Your task to perform on an android device: change the clock display to show seconds Image 0: 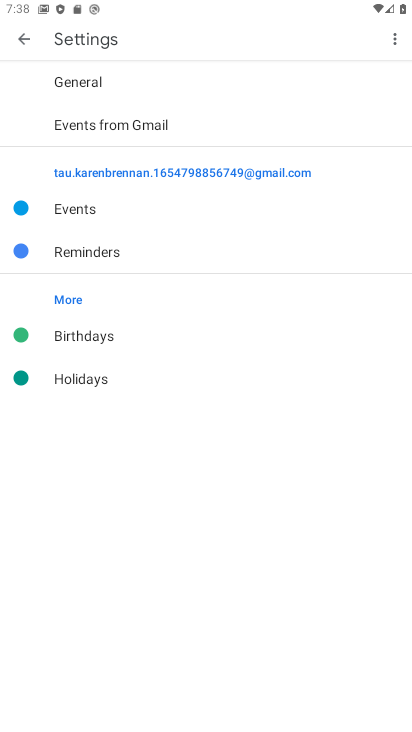
Step 0: press home button
Your task to perform on an android device: change the clock display to show seconds Image 1: 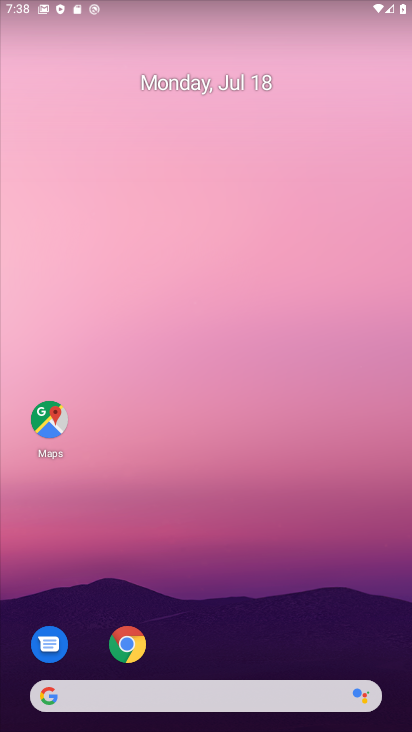
Step 1: drag from (230, 563) to (341, 228)
Your task to perform on an android device: change the clock display to show seconds Image 2: 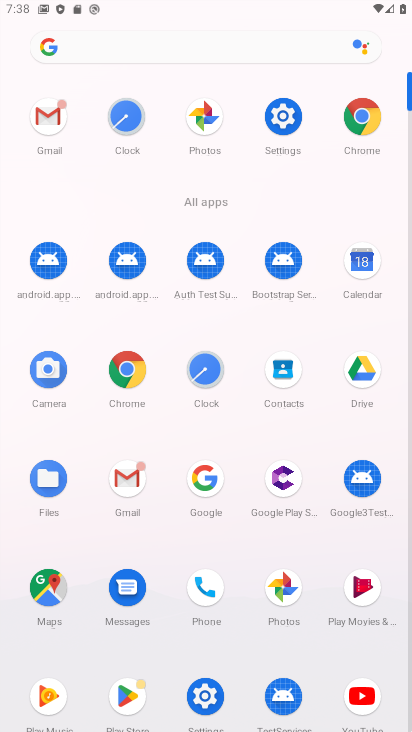
Step 2: click (205, 384)
Your task to perform on an android device: change the clock display to show seconds Image 3: 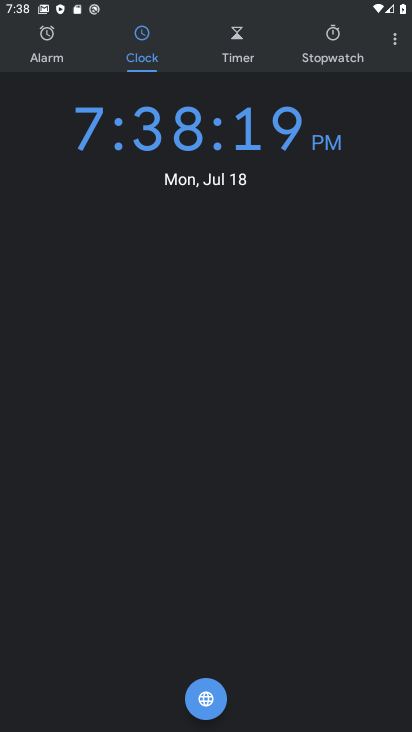
Step 3: click (397, 38)
Your task to perform on an android device: change the clock display to show seconds Image 4: 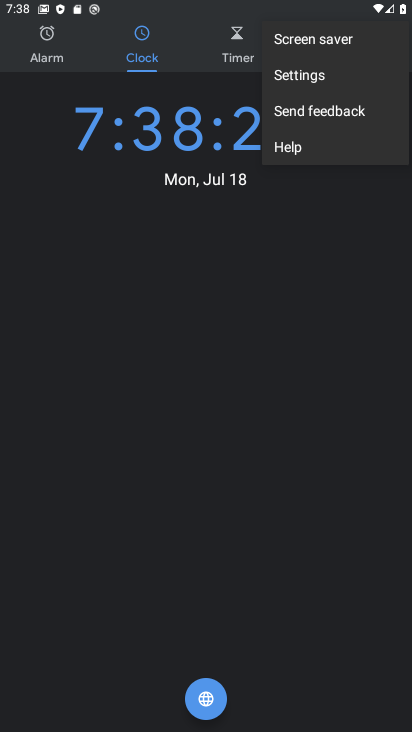
Step 4: click (302, 73)
Your task to perform on an android device: change the clock display to show seconds Image 5: 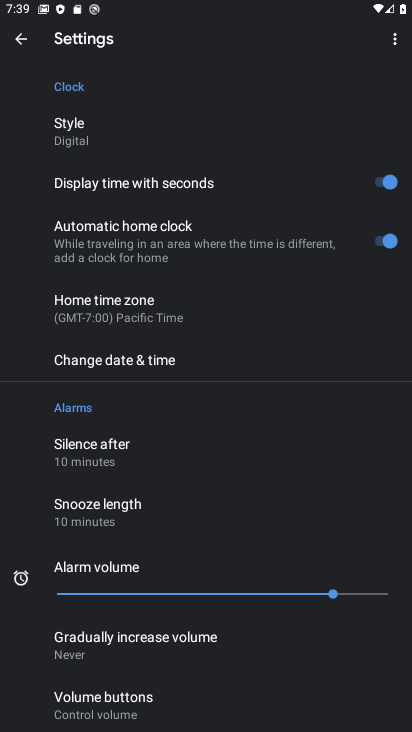
Step 5: task complete